Your task to perform on an android device: Turn on the flashlight Image 0: 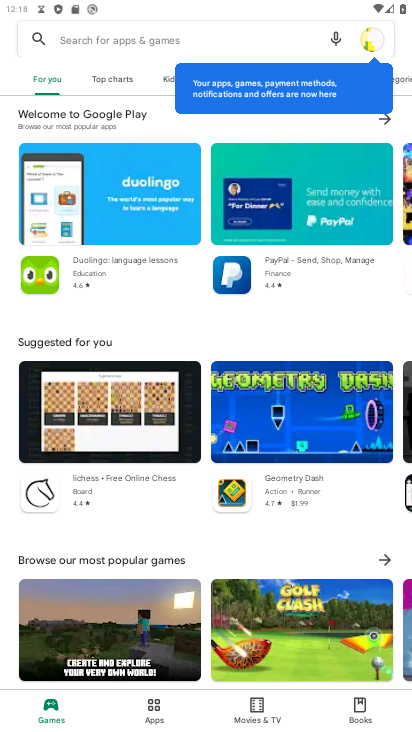
Step 0: press home button
Your task to perform on an android device: Turn on the flashlight Image 1: 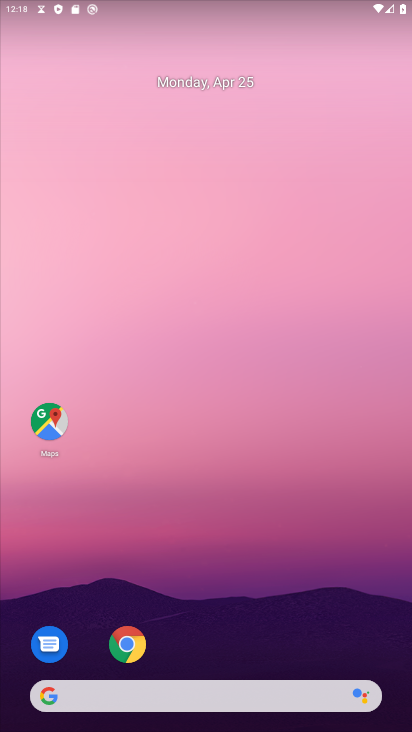
Step 1: task complete